Your task to perform on an android device: Open accessibility settings Image 0: 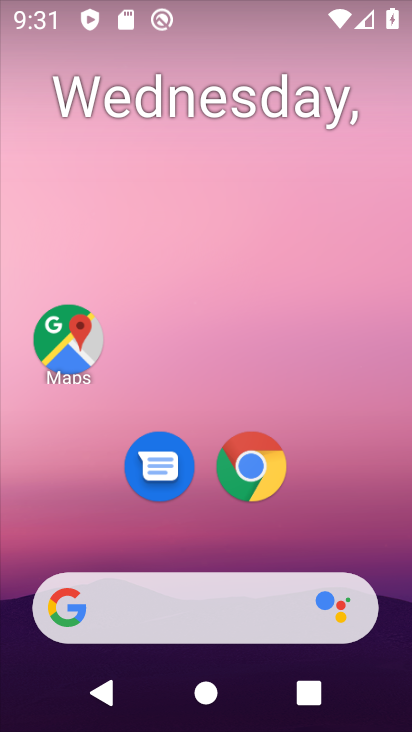
Step 0: drag from (314, 518) to (126, 86)
Your task to perform on an android device: Open accessibility settings Image 1: 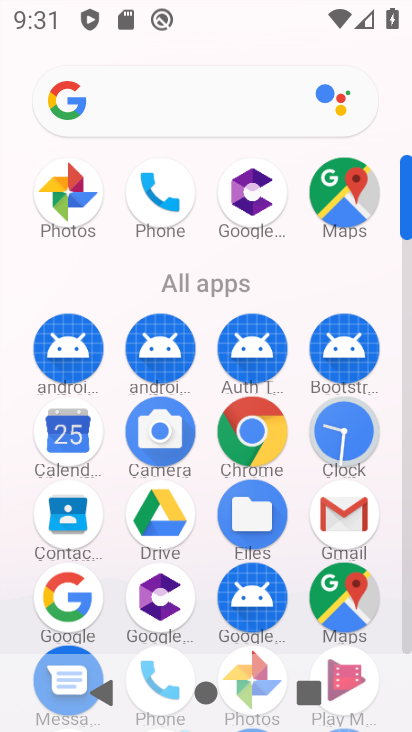
Step 1: drag from (106, 639) to (93, 393)
Your task to perform on an android device: Open accessibility settings Image 2: 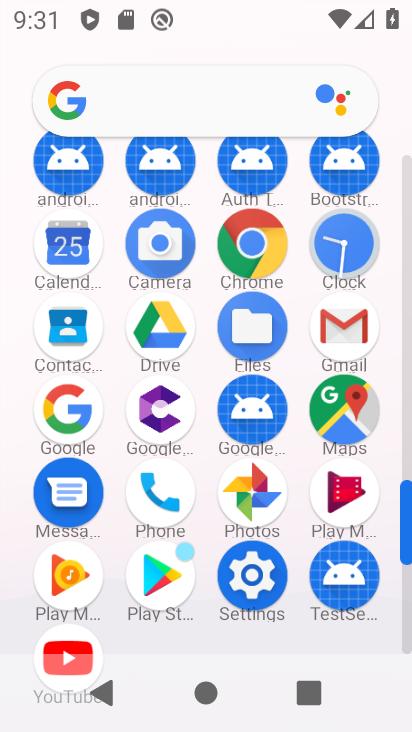
Step 2: click (248, 587)
Your task to perform on an android device: Open accessibility settings Image 3: 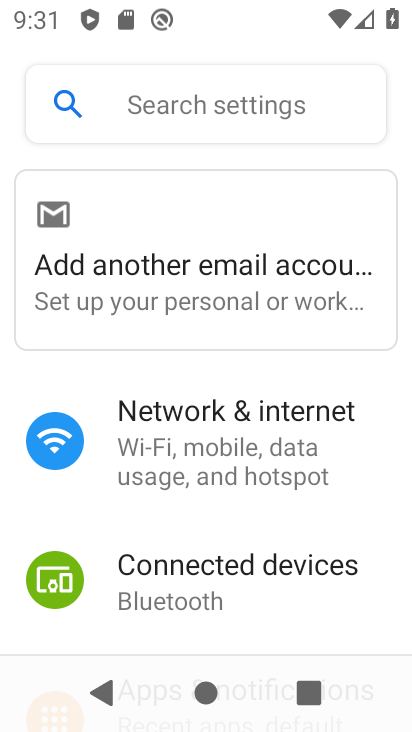
Step 3: drag from (288, 620) to (228, 44)
Your task to perform on an android device: Open accessibility settings Image 4: 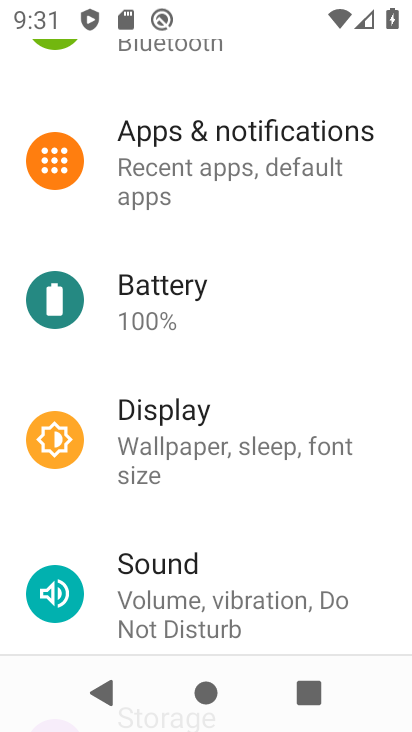
Step 4: drag from (361, 634) to (380, 200)
Your task to perform on an android device: Open accessibility settings Image 5: 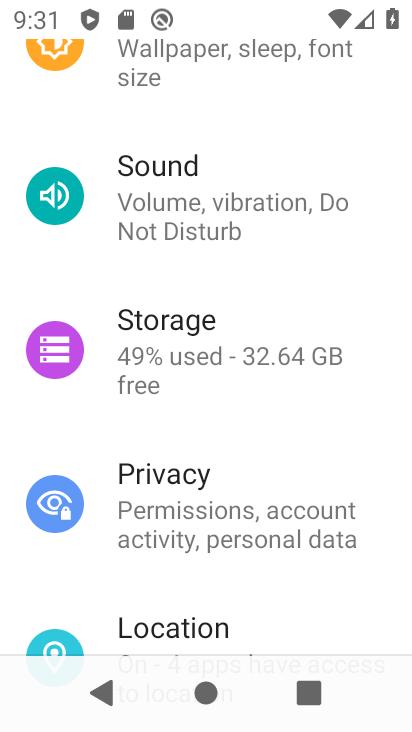
Step 5: drag from (367, 582) to (346, 193)
Your task to perform on an android device: Open accessibility settings Image 6: 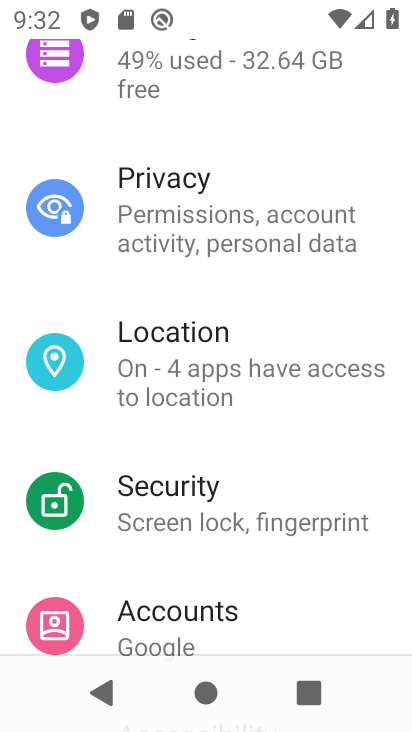
Step 6: drag from (335, 595) to (311, 133)
Your task to perform on an android device: Open accessibility settings Image 7: 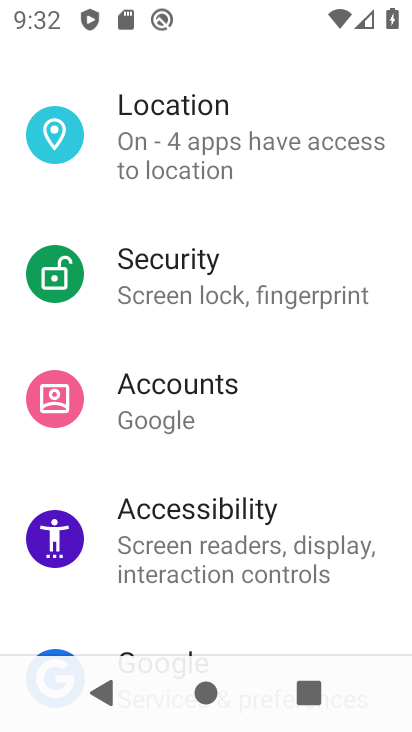
Step 7: click (180, 530)
Your task to perform on an android device: Open accessibility settings Image 8: 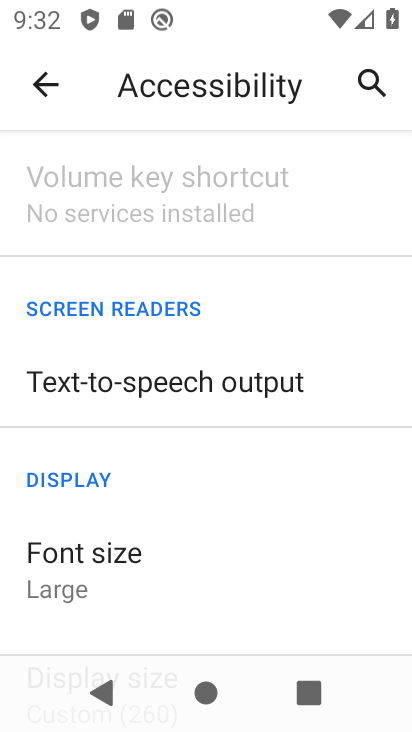
Step 8: task complete